Your task to perform on an android device: Go to location settings Image 0: 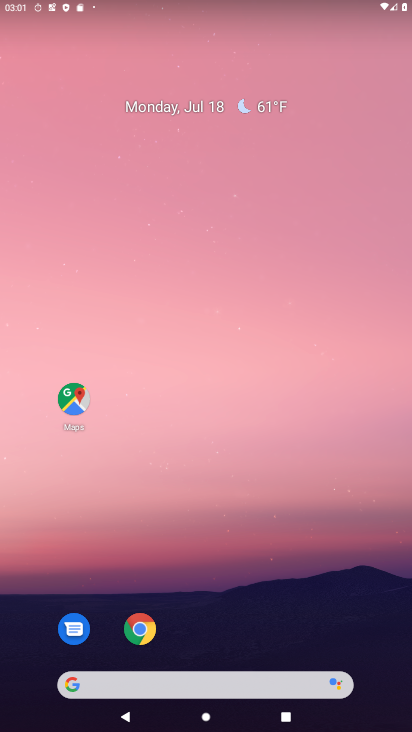
Step 0: drag from (218, 683) to (240, 180)
Your task to perform on an android device: Go to location settings Image 1: 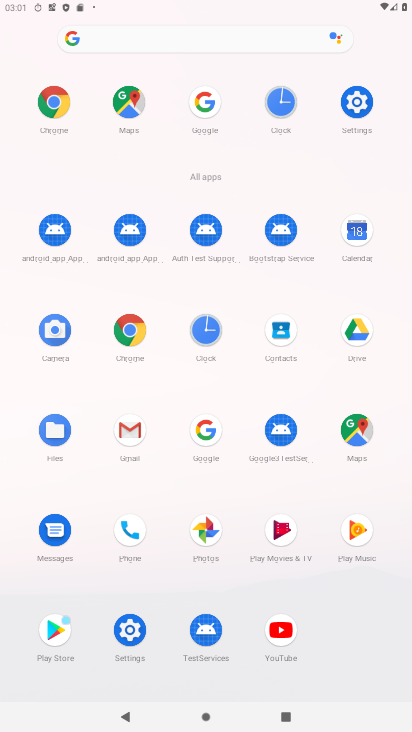
Step 1: click (357, 103)
Your task to perform on an android device: Go to location settings Image 2: 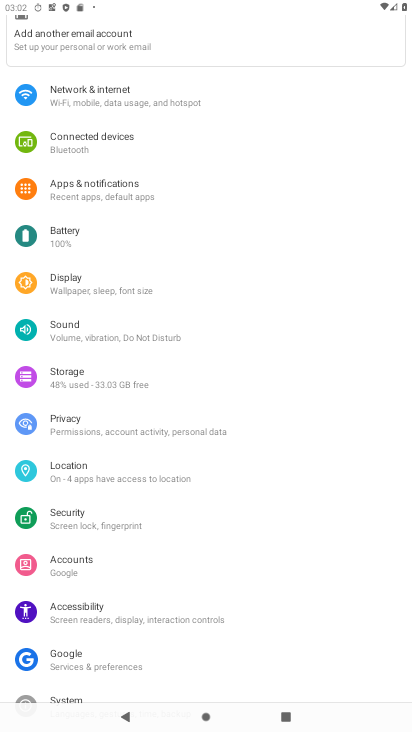
Step 2: click (81, 471)
Your task to perform on an android device: Go to location settings Image 3: 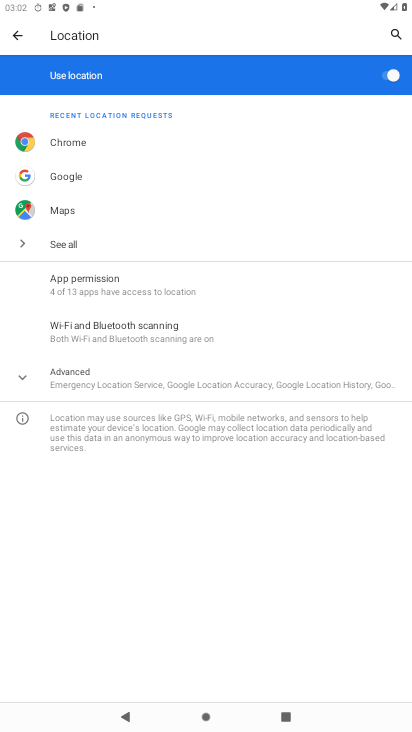
Step 3: task complete